Your task to perform on an android device: check android version Image 0: 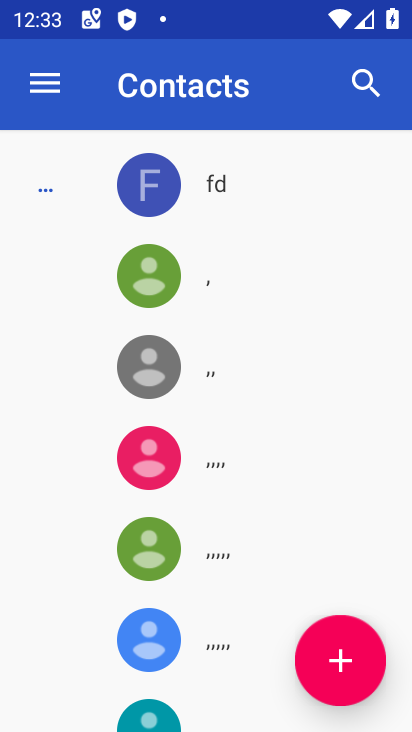
Step 0: press home button
Your task to perform on an android device: check android version Image 1: 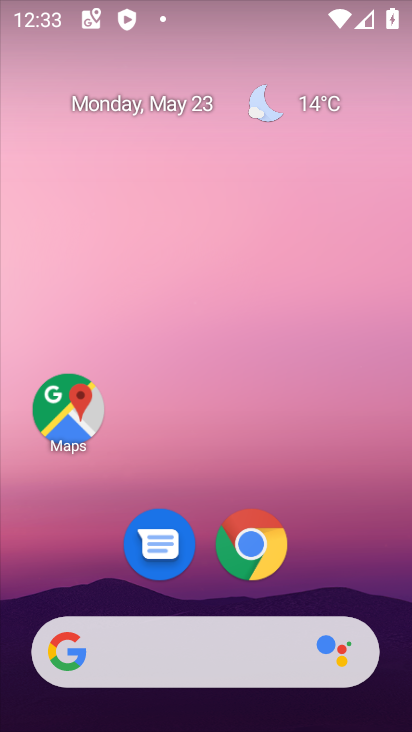
Step 1: drag from (325, 499) to (266, 82)
Your task to perform on an android device: check android version Image 2: 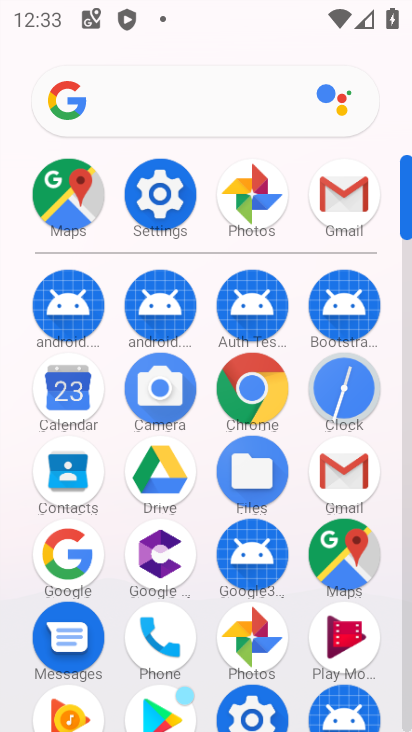
Step 2: click (176, 188)
Your task to perform on an android device: check android version Image 3: 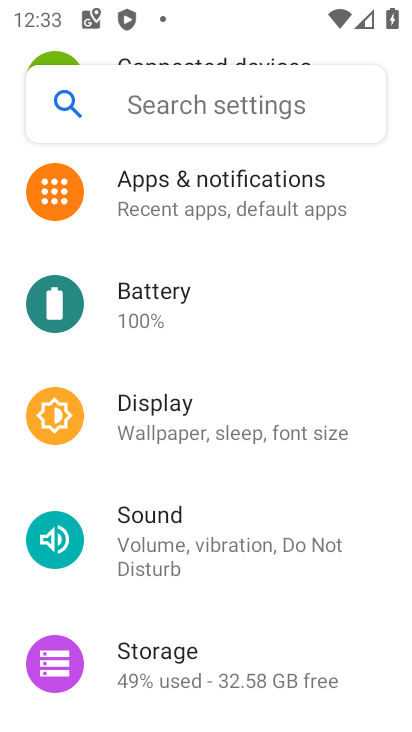
Step 3: drag from (138, 612) to (189, 121)
Your task to perform on an android device: check android version Image 4: 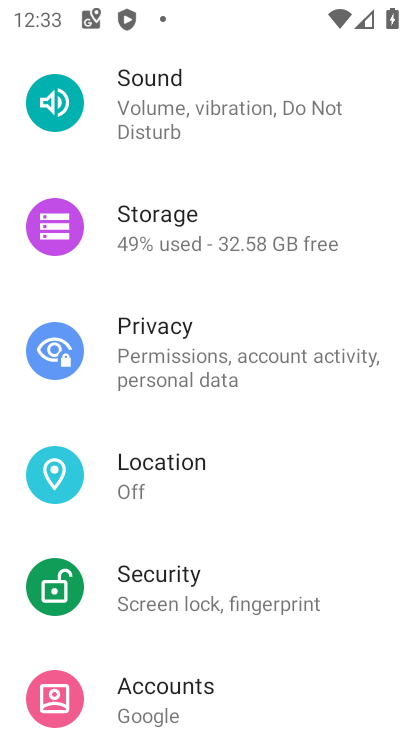
Step 4: drag from (203, 506) to (250, 123)
Your task to perform on an android device: check android version Image 5: 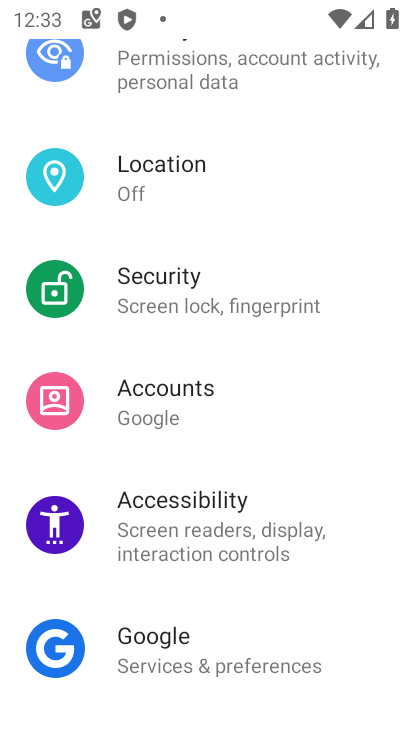
Step 5: drag from (195, 536) to (249, 188)
Your task to perform on an android device: check android version Image 6: 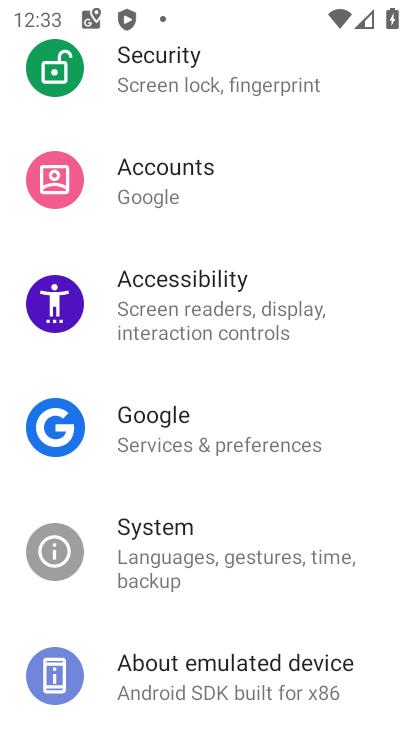
Step 6: click (157, 665)
Your task to perform on an android device: check android version Image 7: 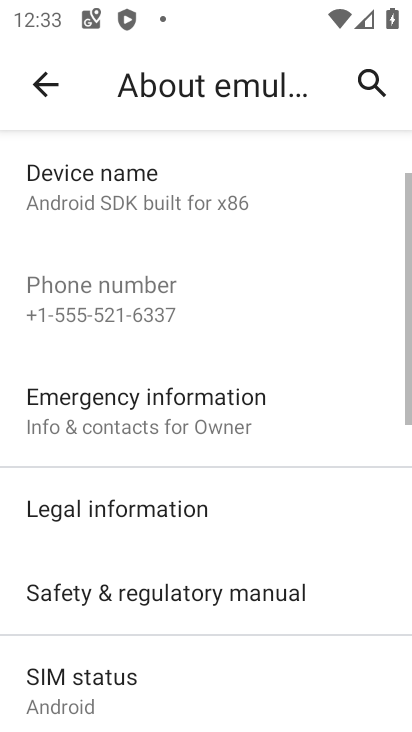
Step 7: drag from (97, 530) to (119, 44)
Your task to perform on an android device: check android version Image 8: 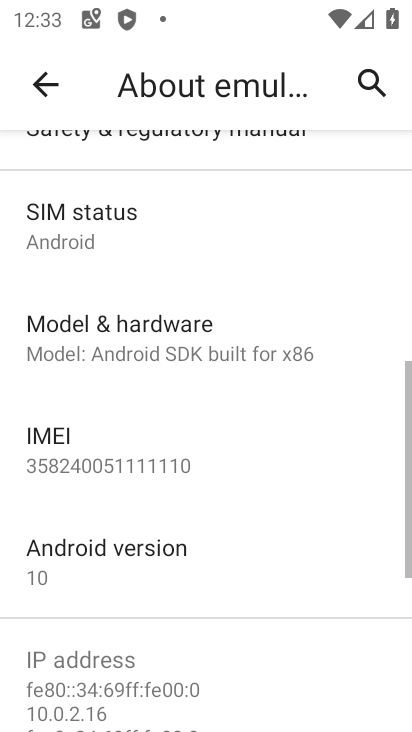
Step 8: click (114, 562)
Your task to perform on an android device: check android version Image 9: 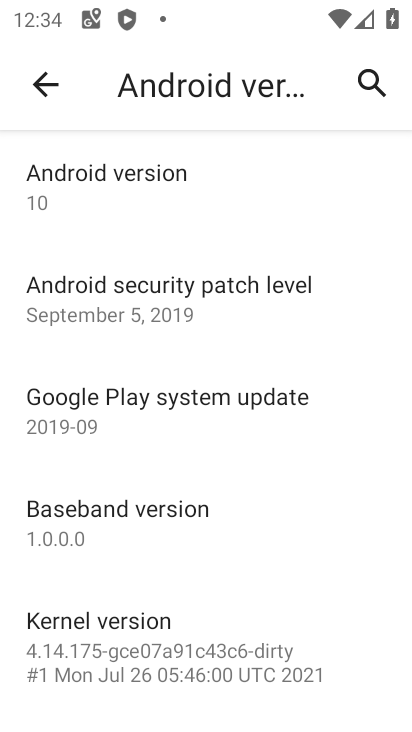
Step 9: task complete